Your task to perform on an android device: check the backup settings in the google photos Image 0: 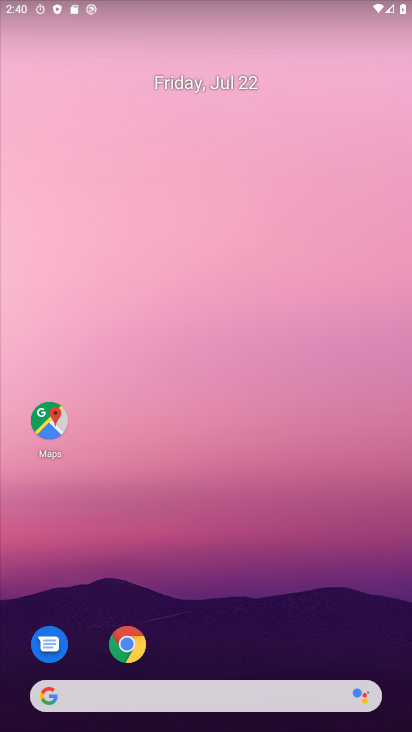
Step 0: press home button
Your task to perform on an android device: check the backup settings in the google photos Image 1: 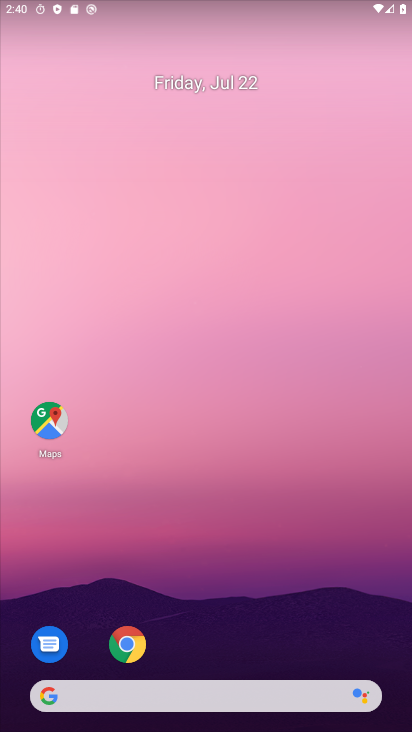
Step 1: drag from (275, 653) to (328, 252)
Your task to perform on an android device: check the backup settings in the google photos Image 2: 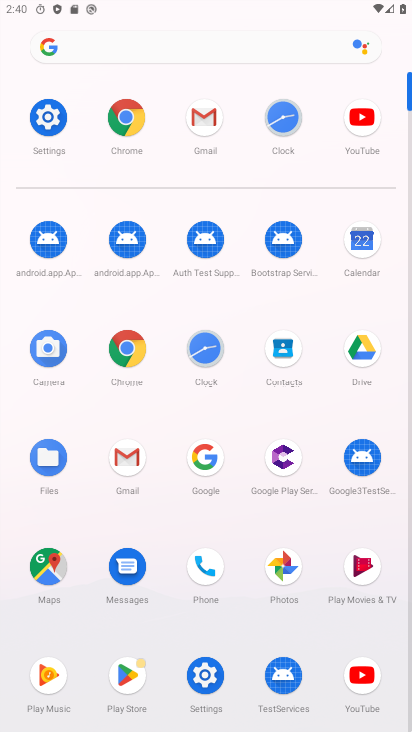
Step 2: click (279, 562)
Your task to perform on an android device: check the backup settings in the google photos Image 3: 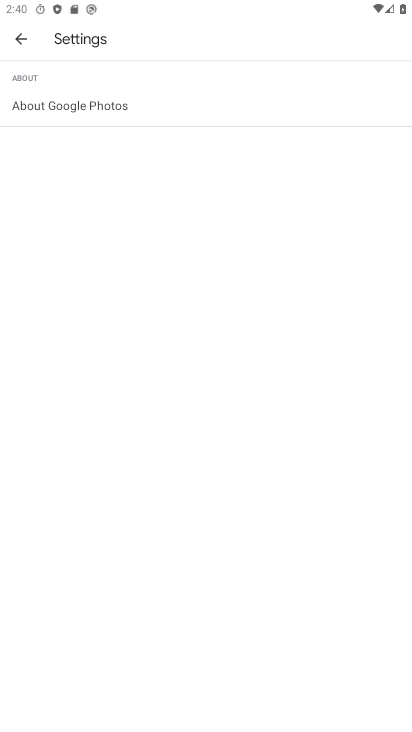
Step 3: click (23, 31)
Your task to perform on an android device: check the backup settings in the google photos Image 4: 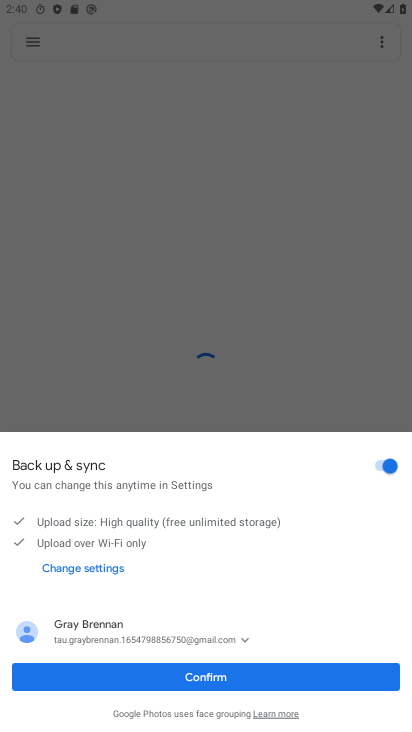
Step 4: click (211, 676)
Your task to perform on an android device: check the backup settings in the google photos Image 5: 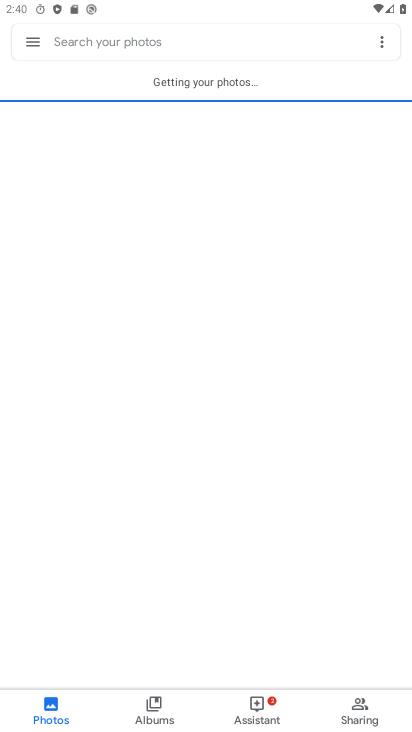
Step 5: click (30, 43)
Your task to perform on an android device: check the backup settings in the google photos Image 6: 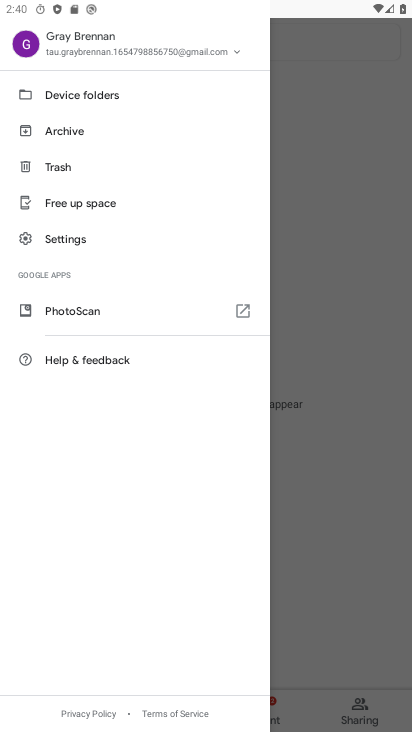
Step 6: click (61, 238)
Your task to perform on an android device: check the backup settings in the google photos Image 7: 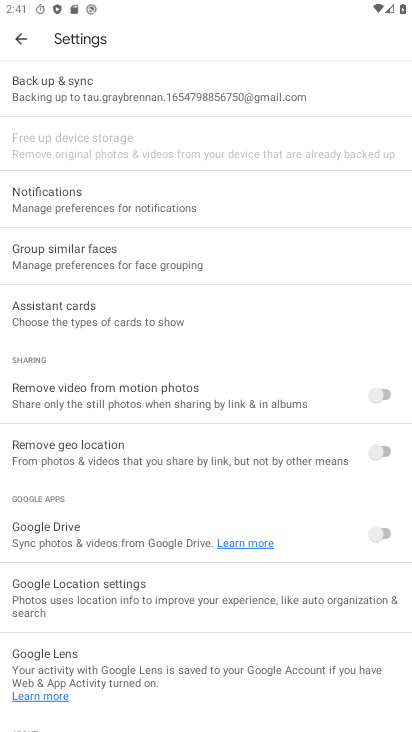
Step 7: click (75, 91)
Your task to perform on an android device: check the backup settings in the google photos Image 8: 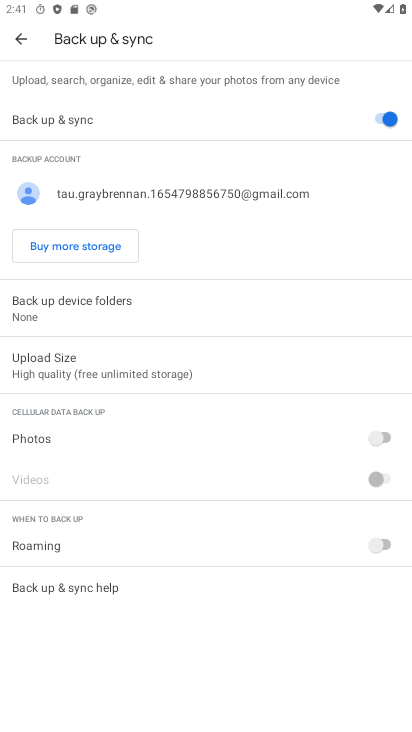
Step 8: task complete